Your task to perform on an android device: Do I have any events today? Image 0: 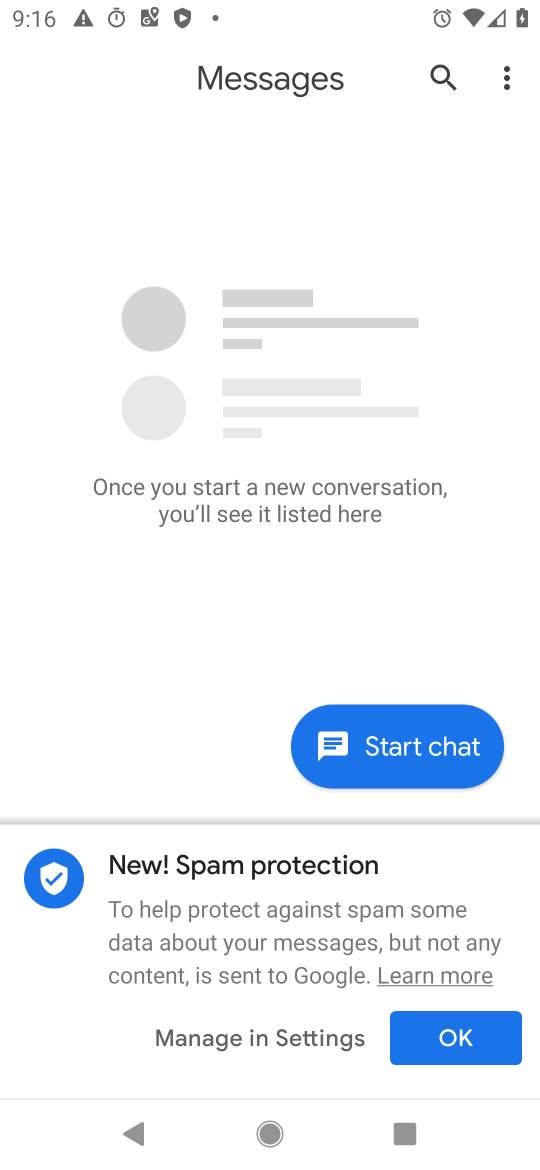
Step 0: press home button
Your task to perform on an android device: Do I have any events today? Image 1: 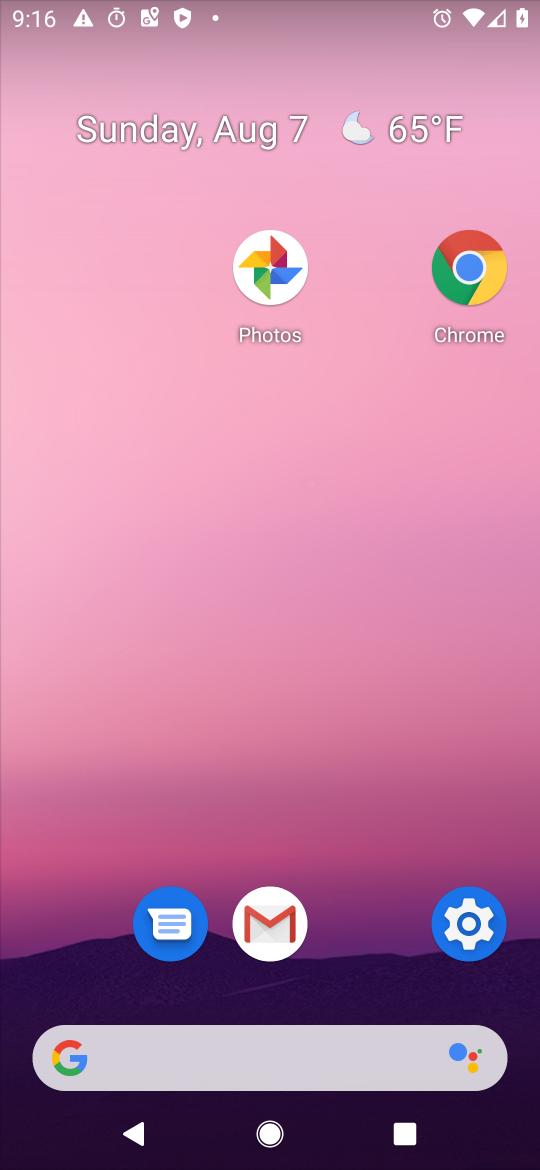
Step 1: drag from (305, 1097) to (236, 194)
Your task to perform on an android device: Do I have any events today? Image 2: 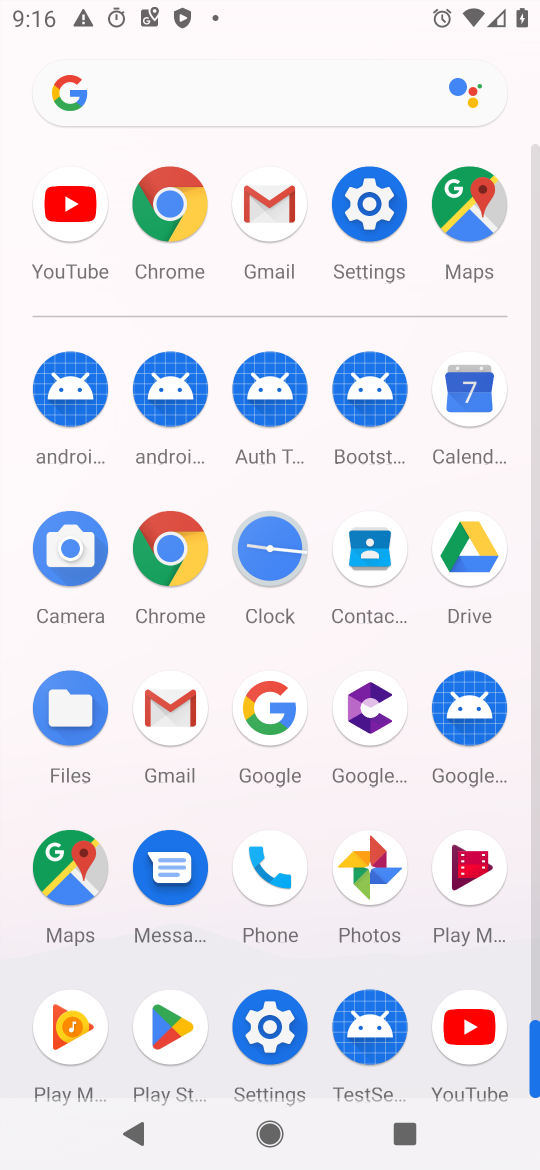
Step 2: click (456, 420)
Your task to perform on an android device: Do I have any events today? Image 3: 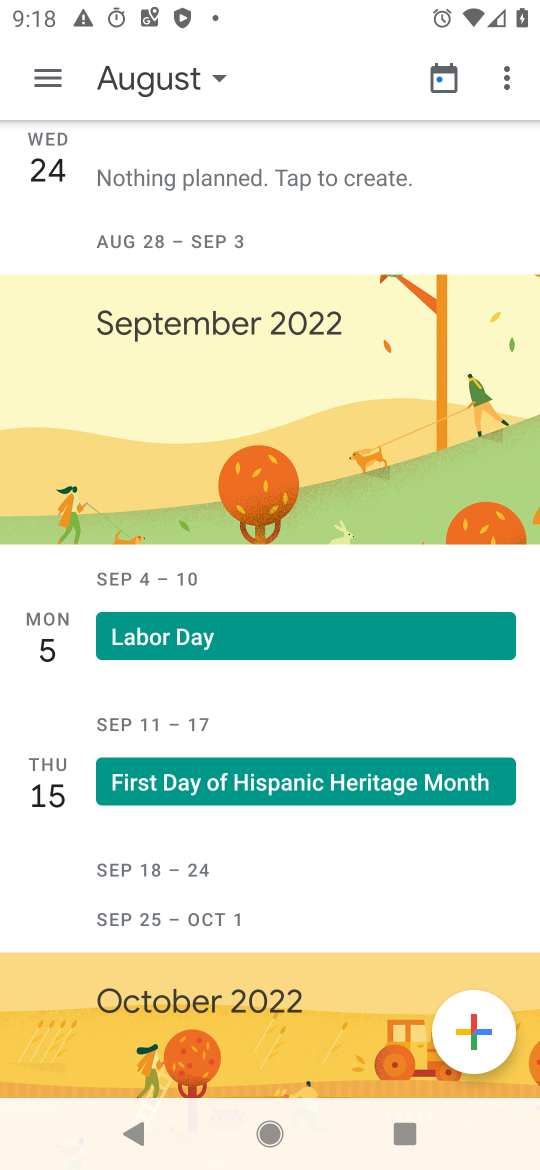
Step 3: click (31, 76)
Your task to perform on an android device: Do I have any events today? Image 4: 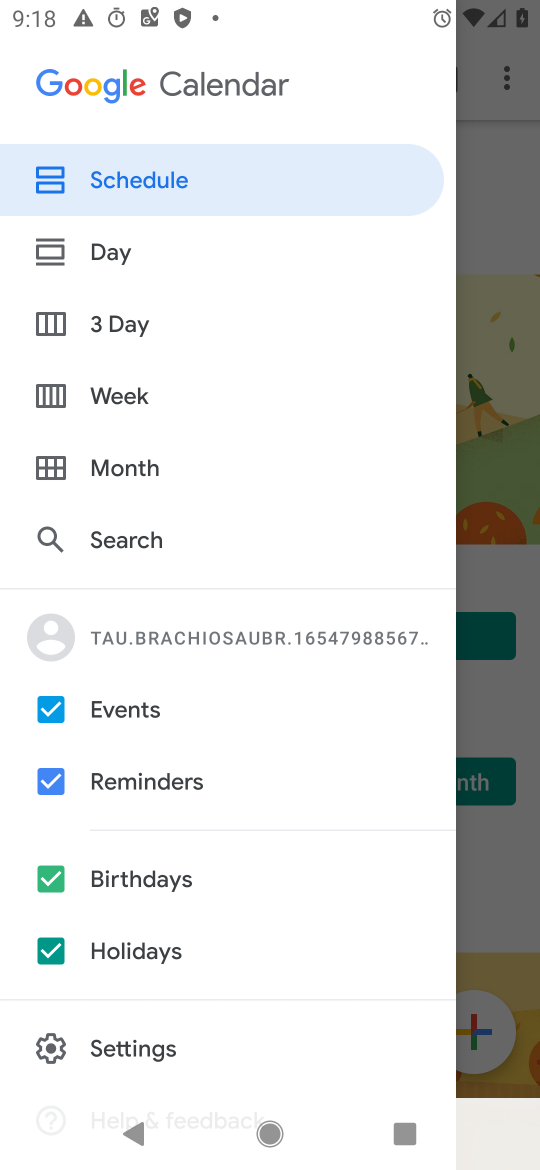
Step 4: click (159, 185)
Your task to perform on an android device: Do I have any events today? Image 5: 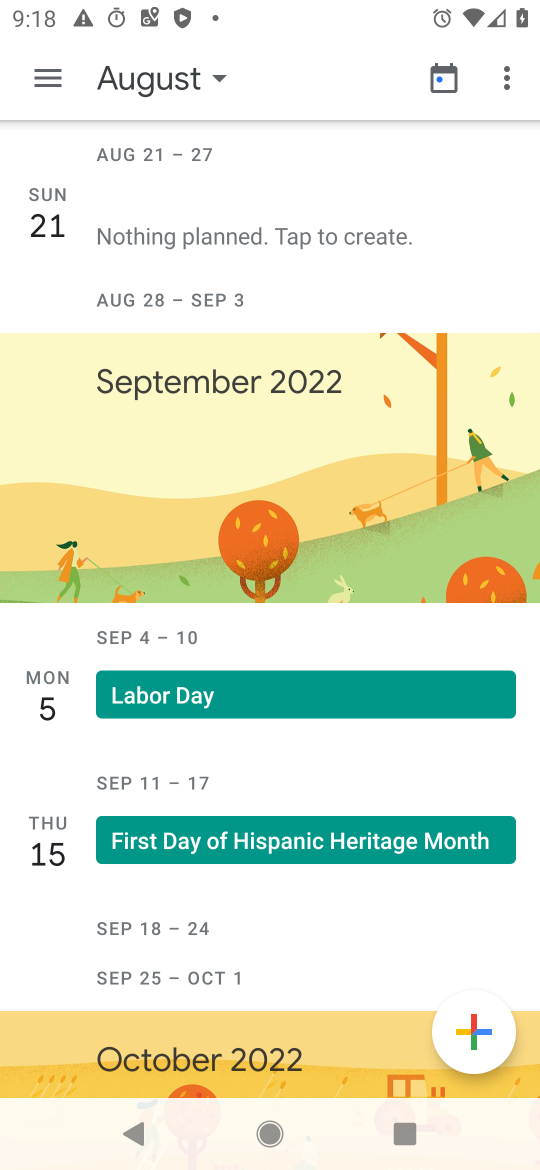
Step 5: click (42, 82)
Your task to perform on an android device: Do I have any events today? Image 6: 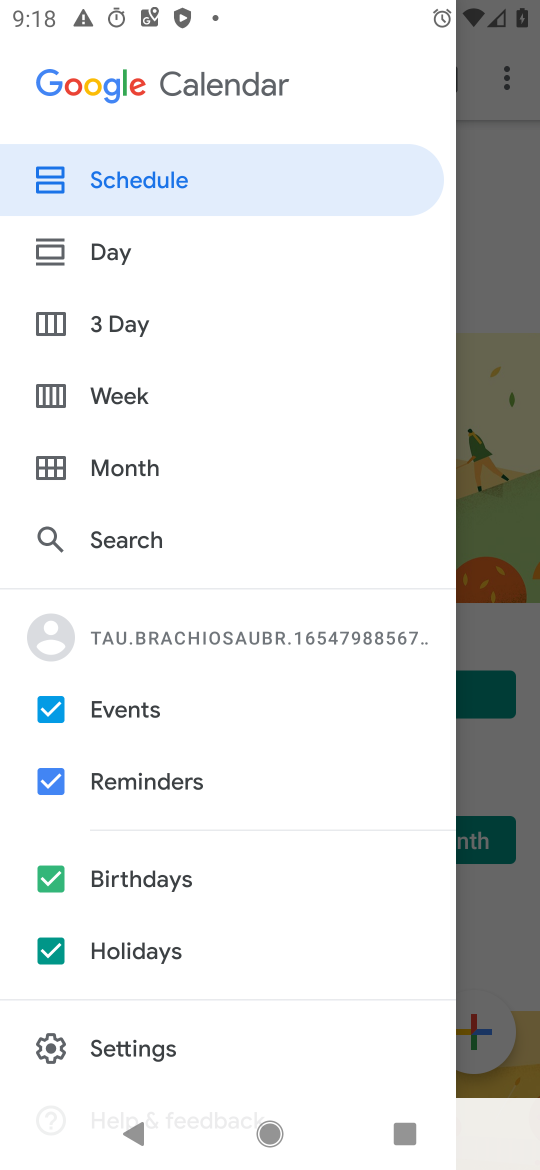
Step 6: click (157, 469)
Your task to perform on an android device: Do I have any events today? Image 7: 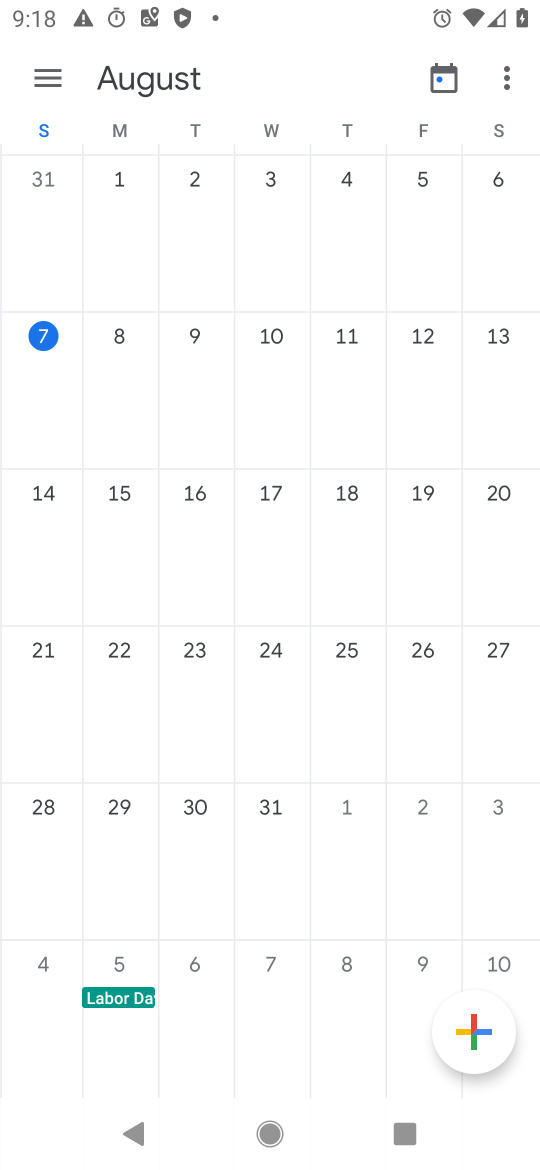
Step 7: click (31, 383)
Your task to perform on an android device: Do I have any events today? Image 8: 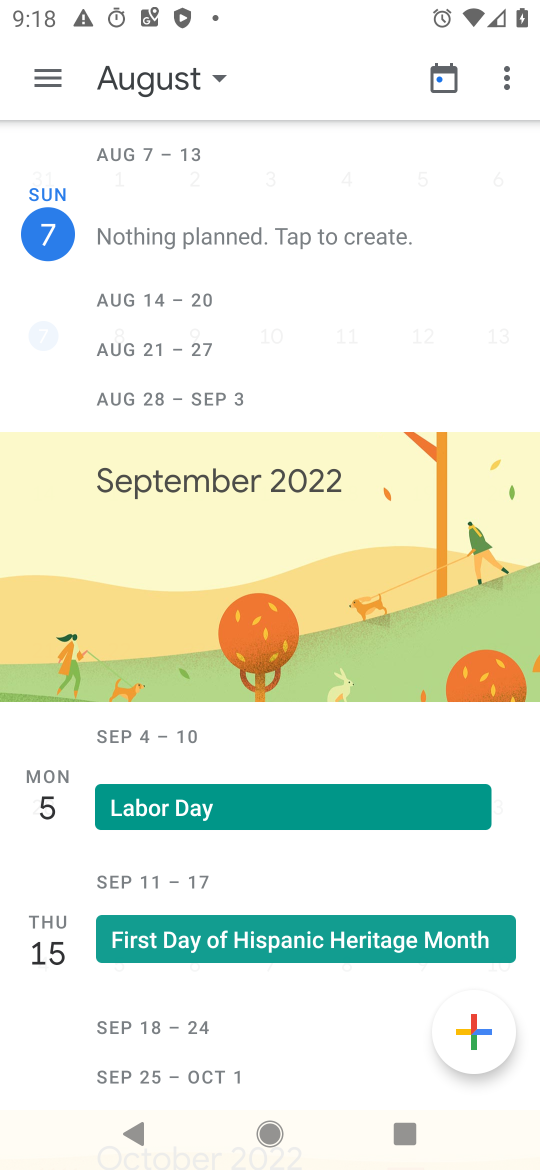
Step 8: task complete